Your task to perform on an android device: Search for Mexican restaurants on Maps Image 0: 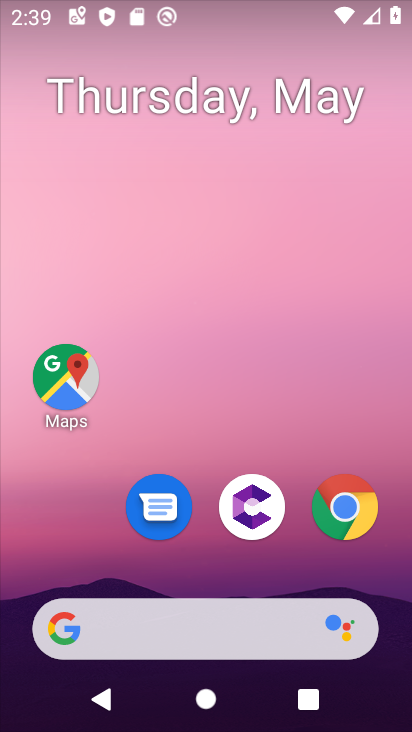
Step 0: press home button
Your task to perform on an android device: Search for Mexican restaurants on Maps Image 1: 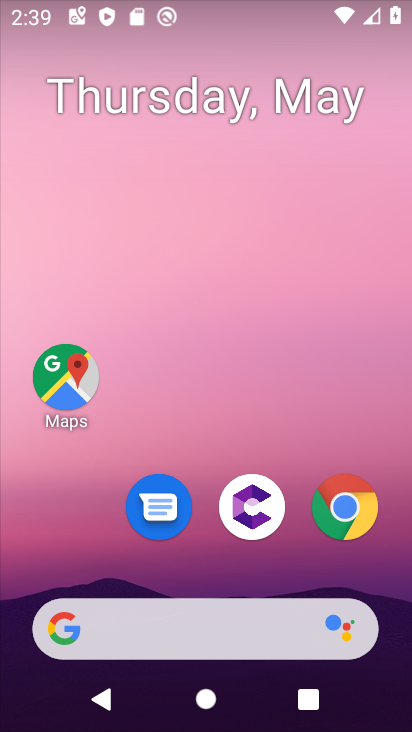
Step 1: click (46, 372)
Your task to perform on an android device: Search for Mexican restaurants on Maps Image 2: 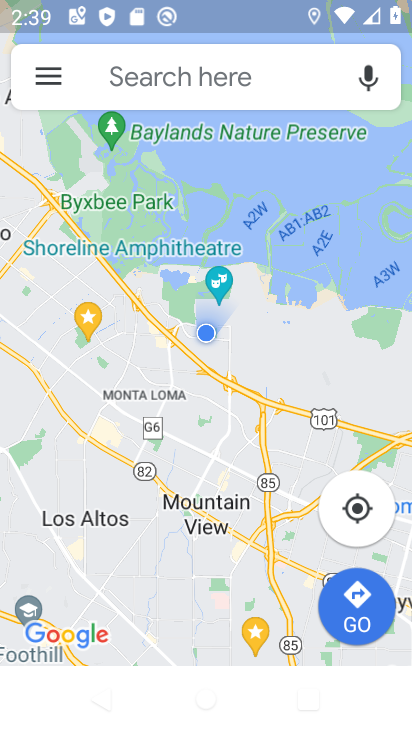
Step 2: click (237, 96)
Your task to perform on an android device: Search for Mexican restaurants on Maps Image 3: 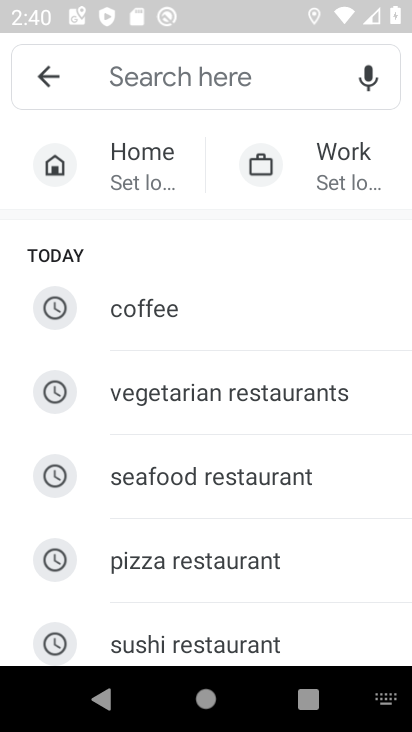
Step 3: type "mexican restaurants"
Your task to perform on an android device: Search for Mexican restaurants on Maps Image 4: 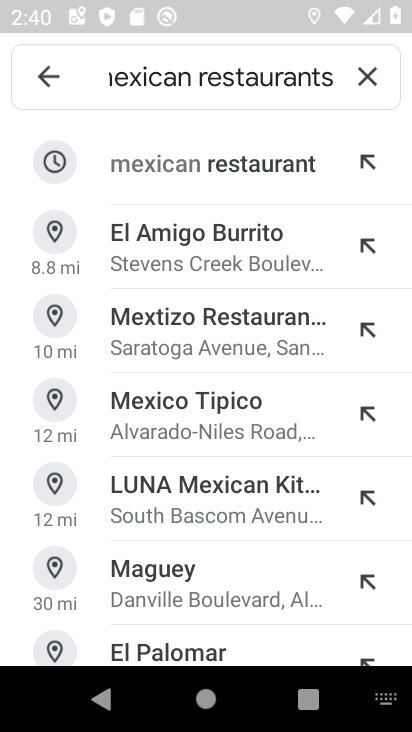
Step 4: click (173, 172)
Your task to perform on an android device: Search for Mexican restaurants on Maps Image 5: 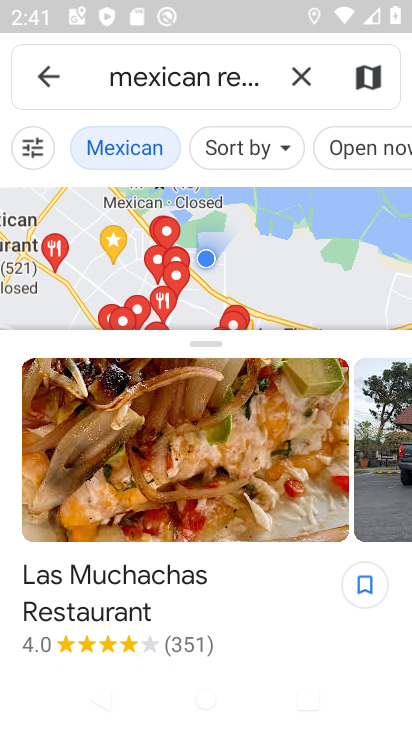
Step 5: task complete